Your task to perform on an android device: open chrome privacy settings Image 0: 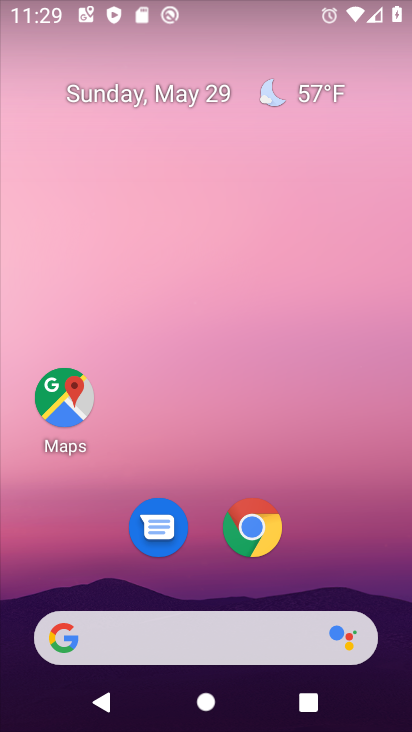
Step 0: click (253, 529)
Your task to perform on an android device: open chrome privacy settings Image 1: 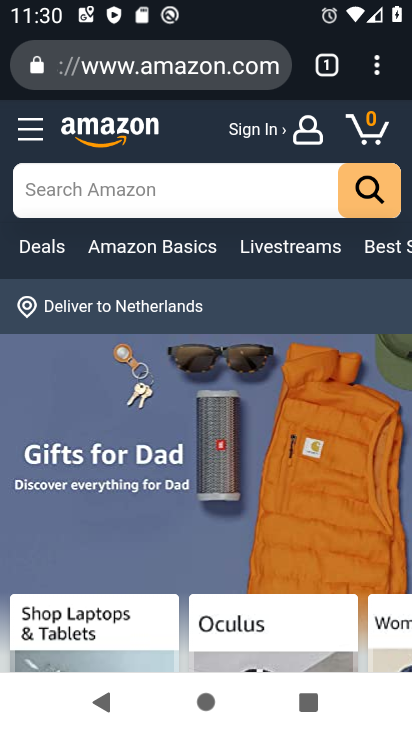
Step 1: click (383, 52)
Your task to perform on an android device: open chrome privacy settings Image 2: 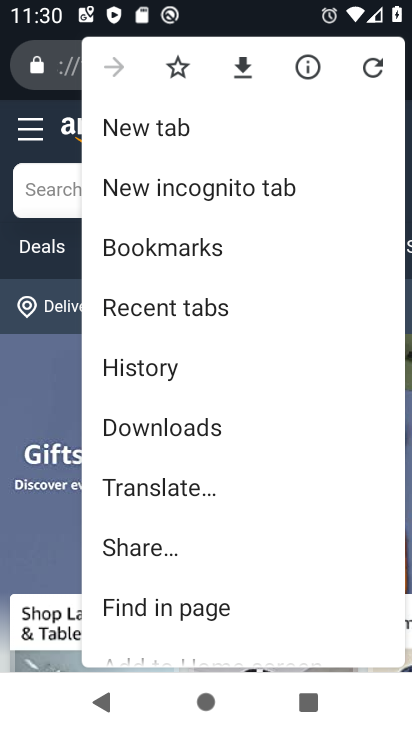
Step 2: drag from (137, 568) to (265, 185)
Your task to perform on an android device: open chrome privacy settings Image 3: 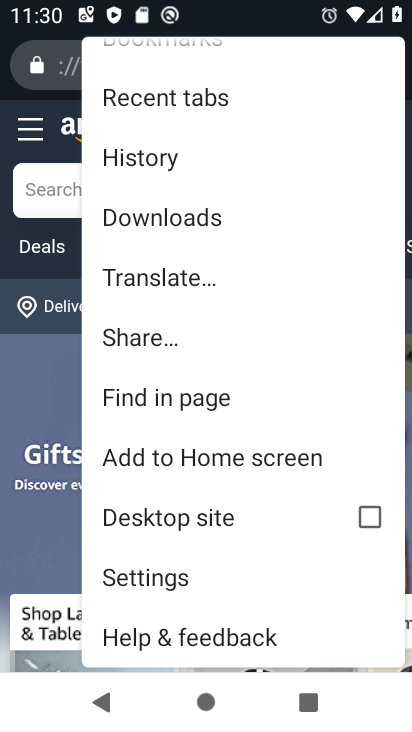
Step 3: click (184, 567)
Your task to perform on an android device: open chrome privacy settings Image 4: 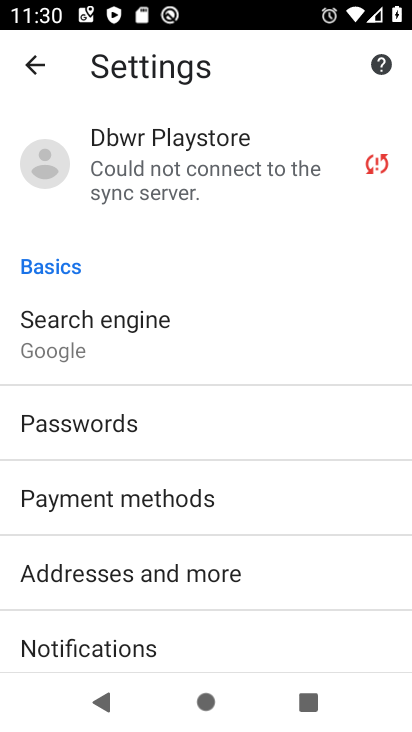
Step 4: drag from (184, 567) to (261, 92)
Your task to perform on an android device: open chrome privacy settings Image 5: 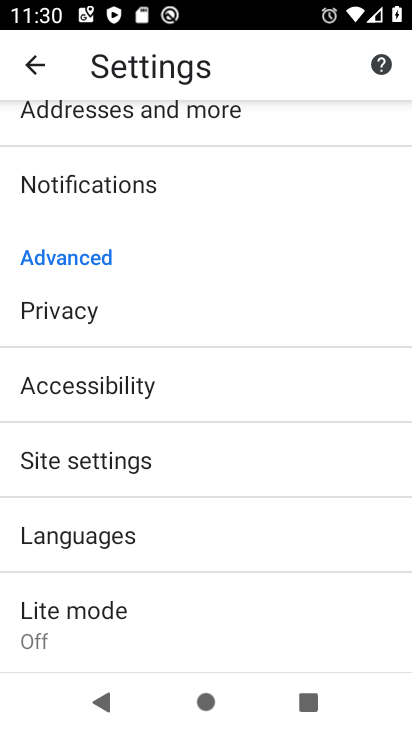
Step 5: click (77, 301)
Your task to perform on an android device: open chrome privacy settings Image 6: 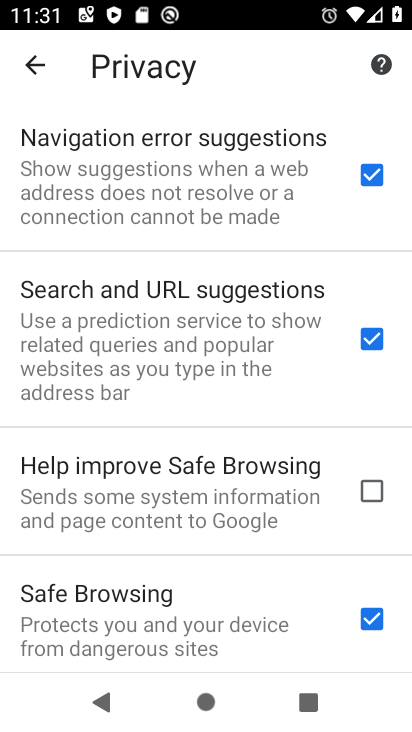
Step 6: task complete